Your task to perform on an android device: Go to display settings Image 0: 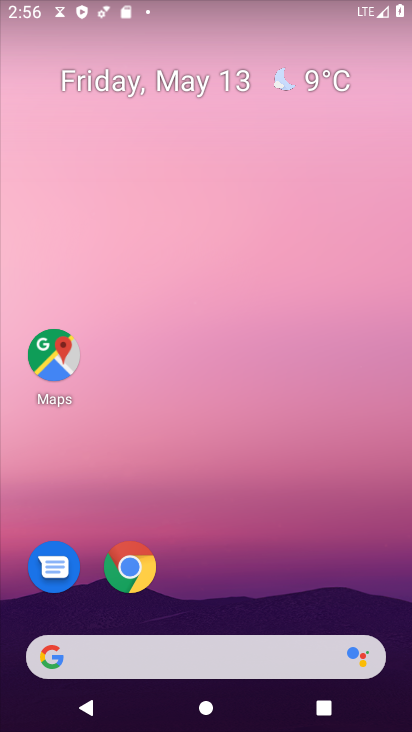
Step 0: click (370, 95)
Your task to perform on an android device: Go to display settings Image 1: 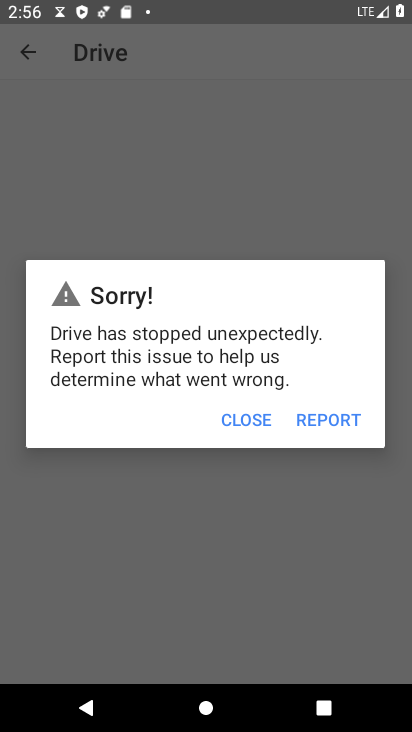
Step 1: press home button
Your task to perform on an android device: Go to display settings Image 2: 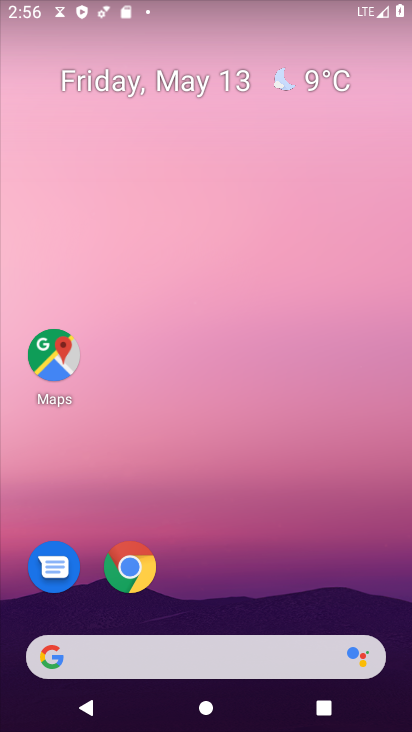
Step 2: drag from (260, 589) to (236, 13)
Your task to perform on an android device: Go to display settings Image 3: 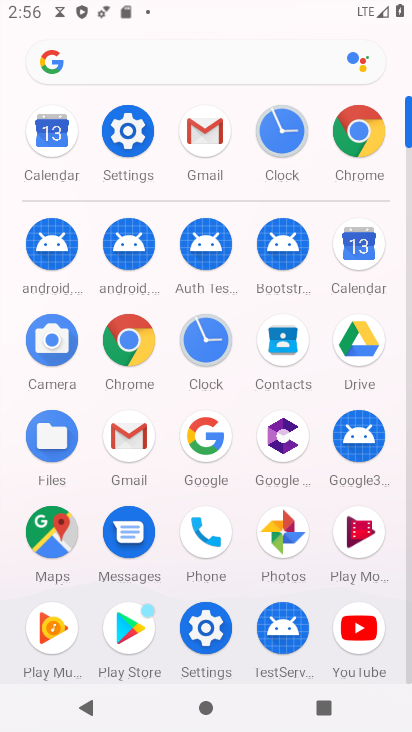
Step 3: click (127, 133)
Your task to perform on an android device: Go to display settings Image 4: 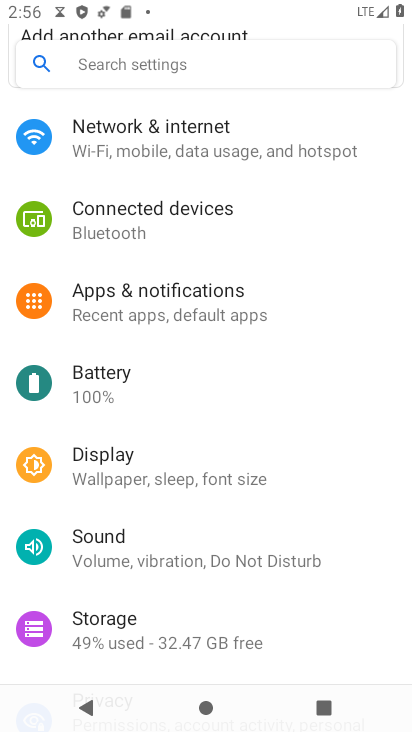
Step 4: click (105, 472)
Your task to perform on an android device: Go to display settings Image 5: 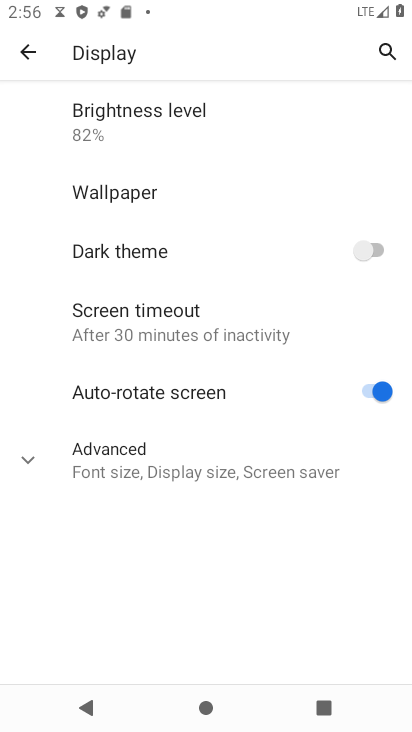
Step 5: task complete